Your task to perform on an android device: Open Google Maps and go to "Timeline" Image 0: 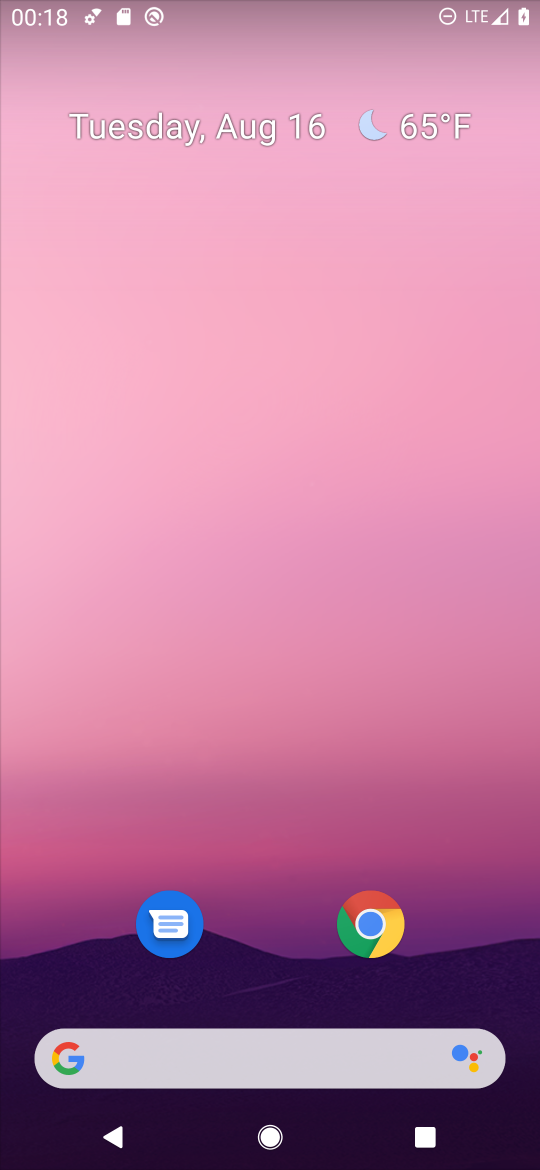
Step 0: drag from (428, 863) to (335, 0)
Your task to perform on an android device: Open Google Maps and go to "Timeline" Image 1: 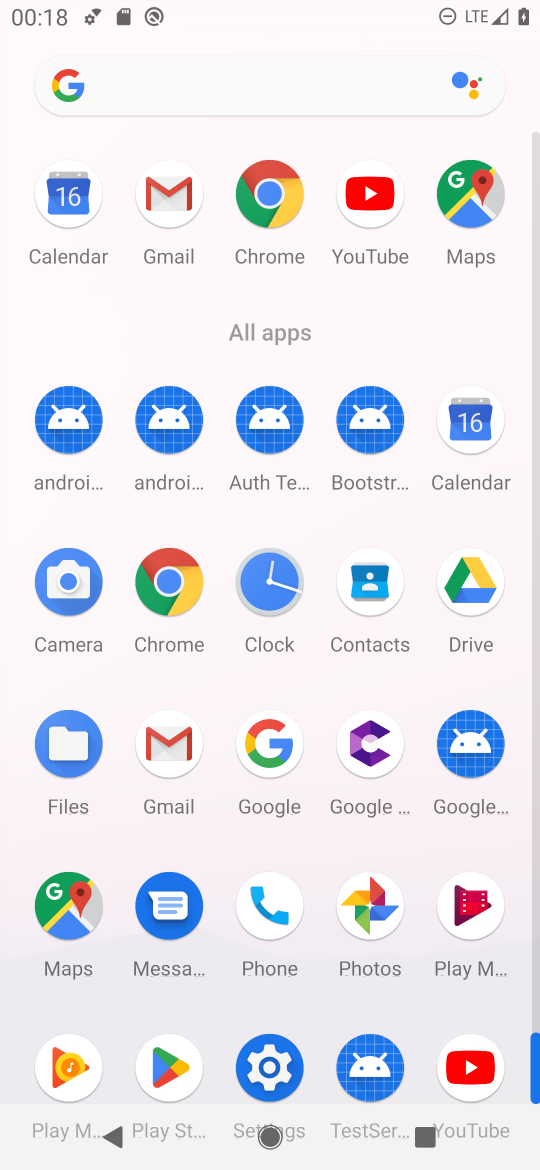
Step 1: click (76, 922)
Your task to perform on an android device: Open Google Maps and go to "Timeline" Image 2: 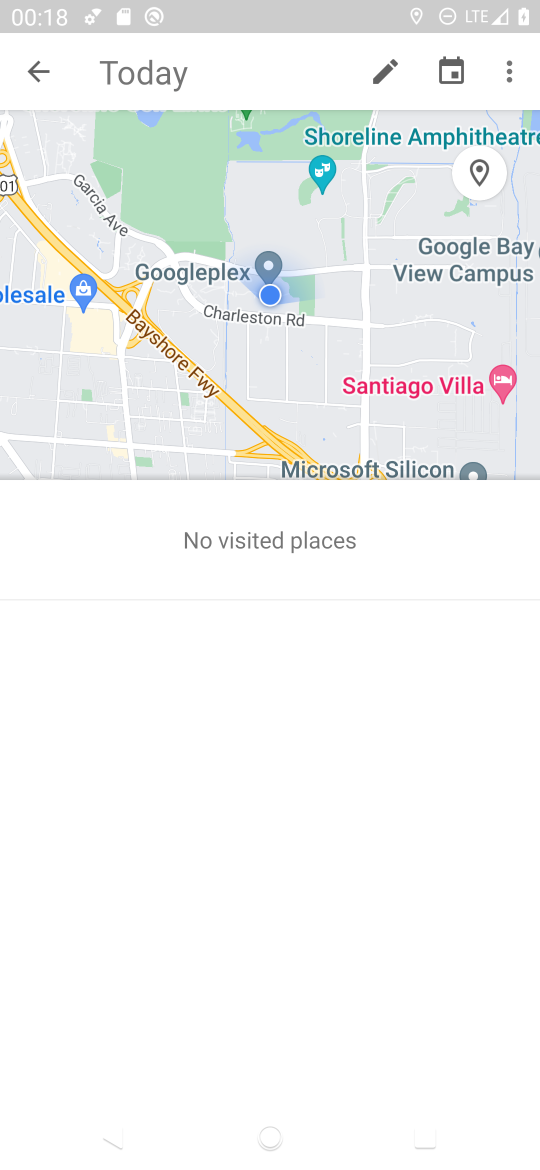
Step 2: click (23, 77)
Your task to perform on an android device: Open Google Maps and go to "Timeline" Image 3: 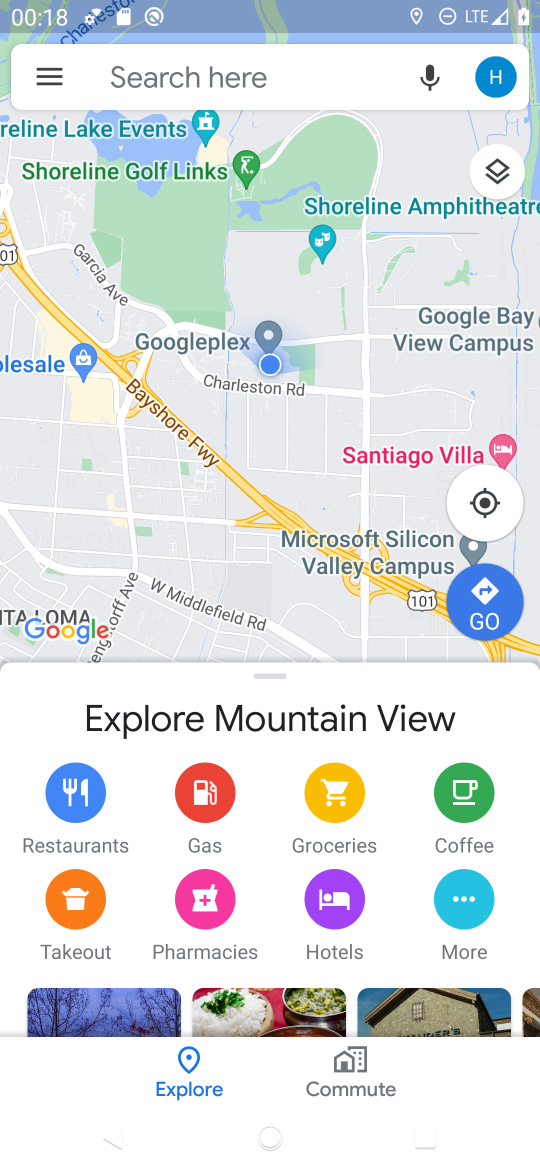
Step 3: click (54, 86)
Your task to perform on an android device: Open Google Maps and go to "Timeline" Image 4: 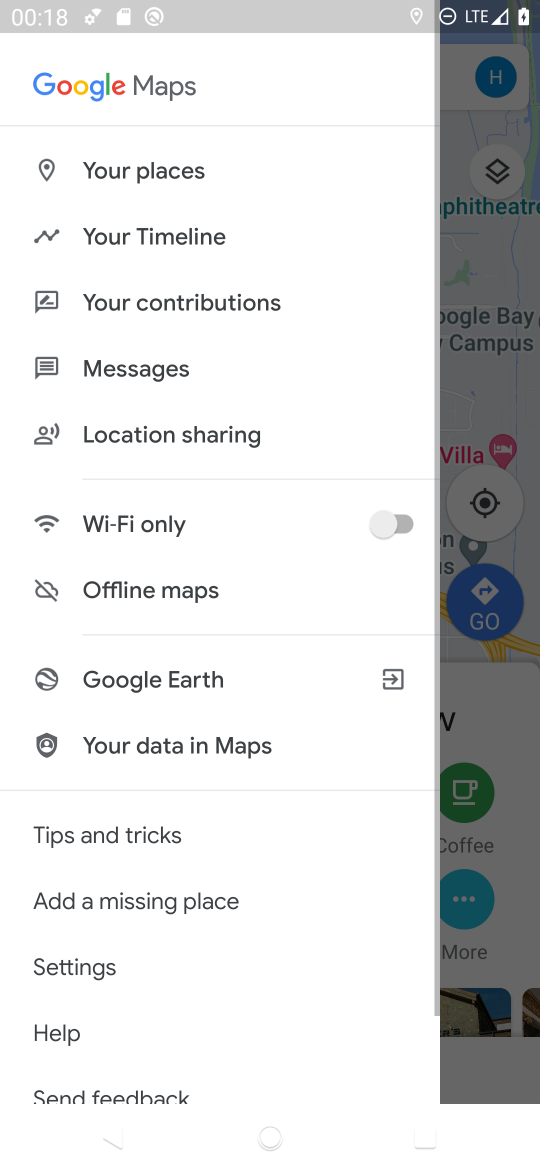
Step 4: click (160, 241)
Your task to perform on an android device: Open Google Maps and go to "Timeline" Image 5: 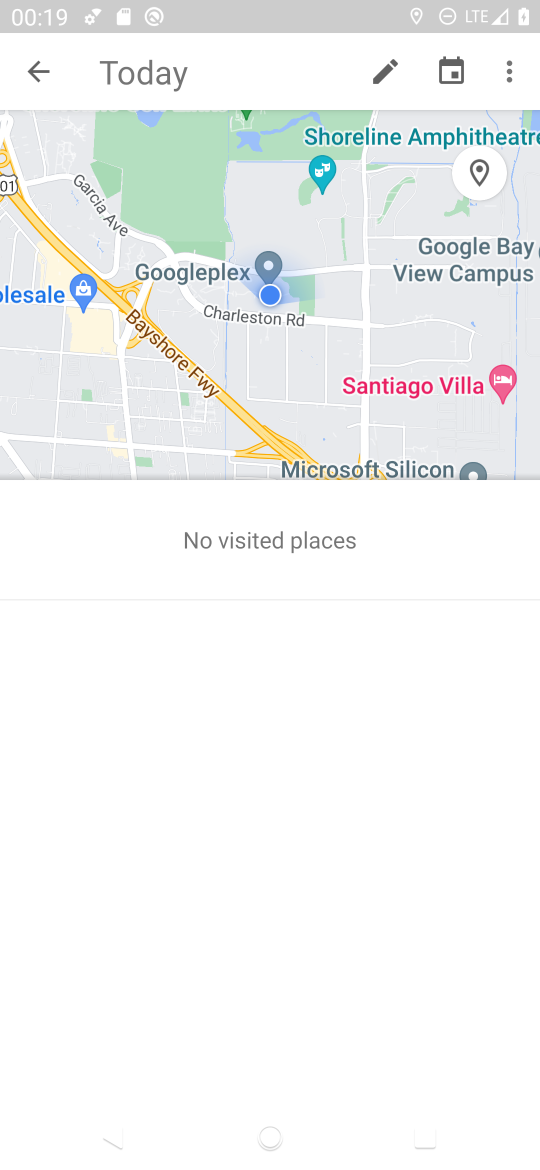
Step 5: task complete